Your task to perform on an android device: turn pop-ups on in chrome Image 0: 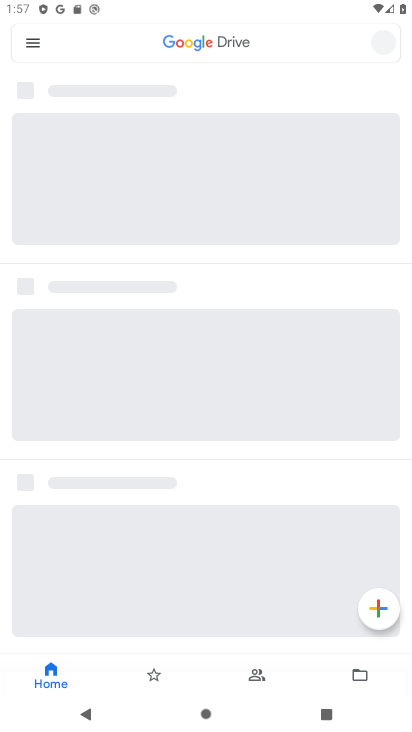
Step 0: click (123, 600)
Your task to perform on an android device: turn pop-ups on in chrome Image 1: 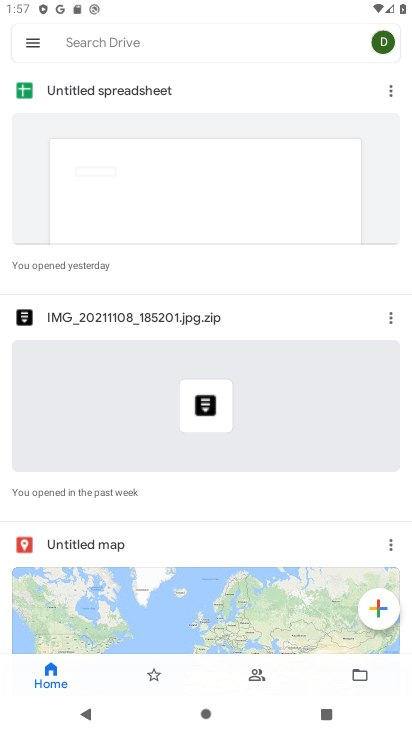
Step 1: press home button
Your task to perform on an android device: turn pop-ups on in chrome Image 2: 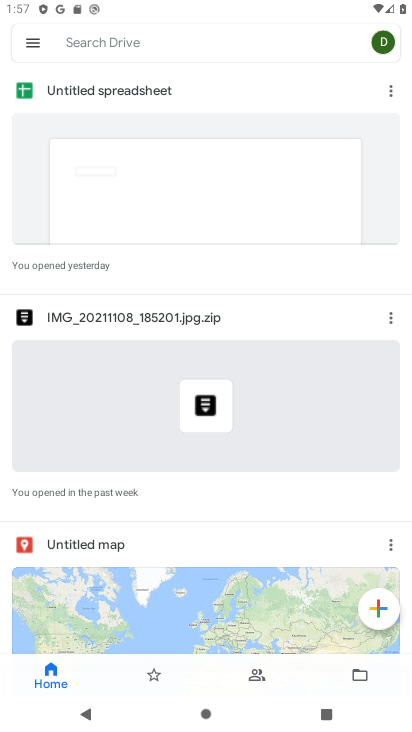
Step 2: press home button
Your task to perform on an android device: turn pop-ups on in chrome Image 3: 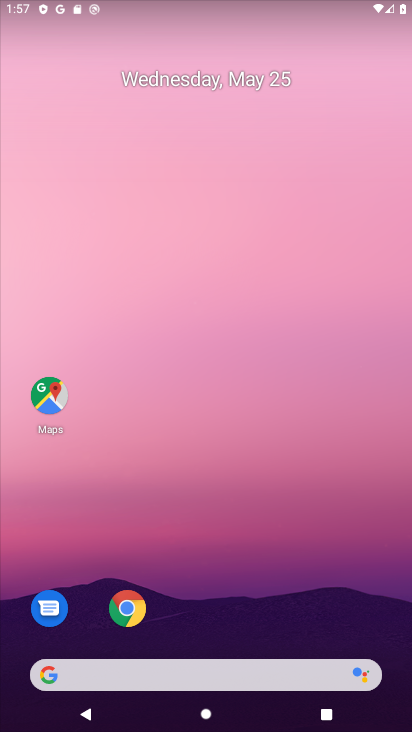
Step 3: press home button
Your task to perform on an android device: turn pop-ups on in chrome Image 4: 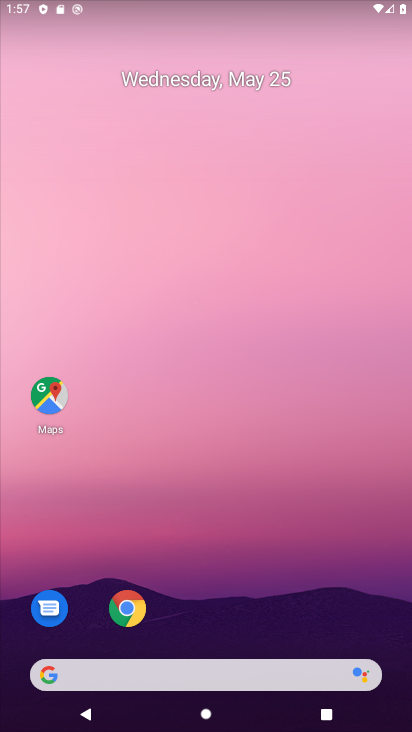
Step 4: drag from (371, 533) to (123, 607)
Your task to perform on an android device: turn pop-ups on in chrome Image 5: 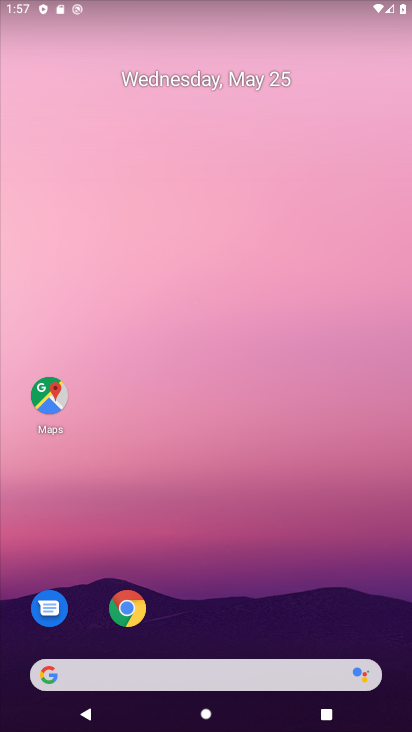
Step 5: click (128, 607)
Your task to perform on an android device: turn pop-ups on in chrome Image 6: 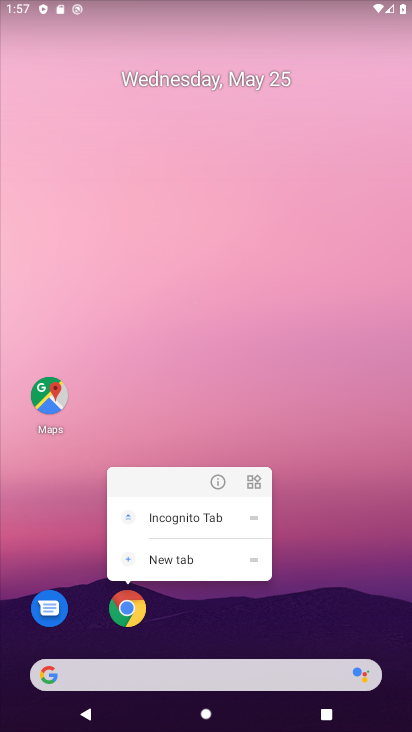
Step 6: click (128, 607)
Your task to perform on an android device: turn pop-ups on in chrome Image 7: 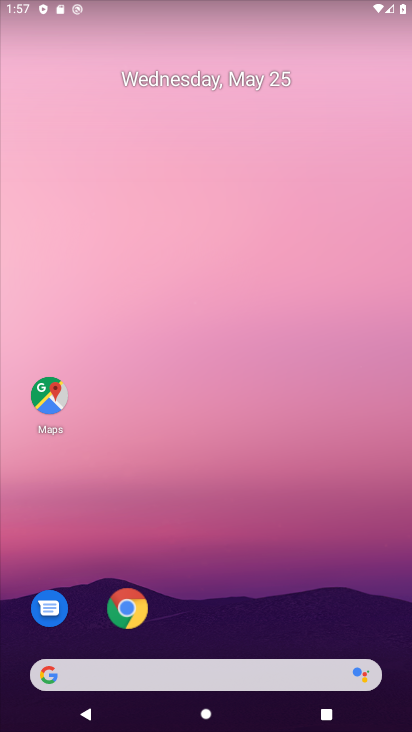
Step 7: click (128, 607)
Your task to perform on an android device: turn pop-ups on in chrome Image 8: 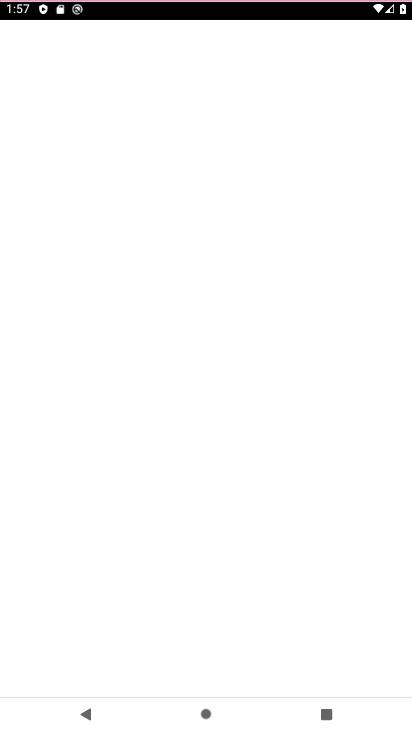
Step 8: click (128, 607)
Your task to perform on an android device: turn pop-ups on in chrome Image 9: 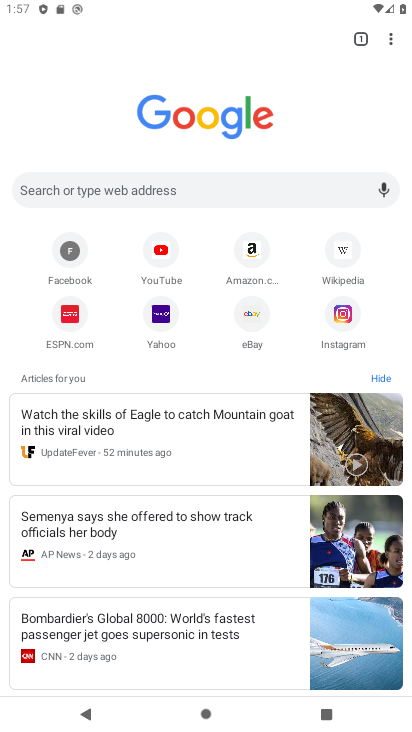
Step 9: click (392, 35)
Your task to perform on an android device: turn pop-ups on in chrome Image 10: 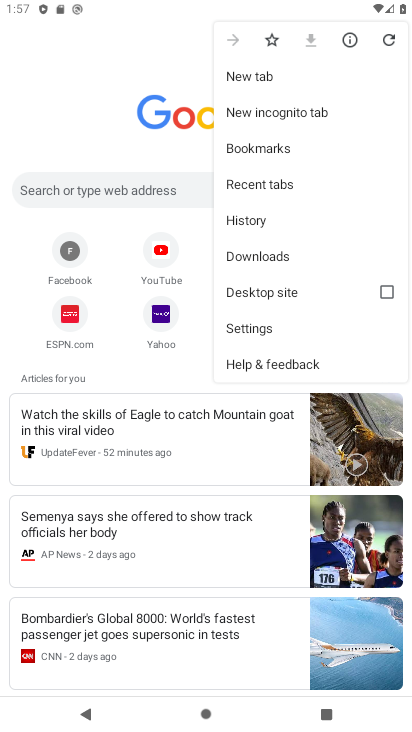
Step 10: click (235, 332)
Your task to perform on an android device: turn pop-ups on in chrome Image 11: 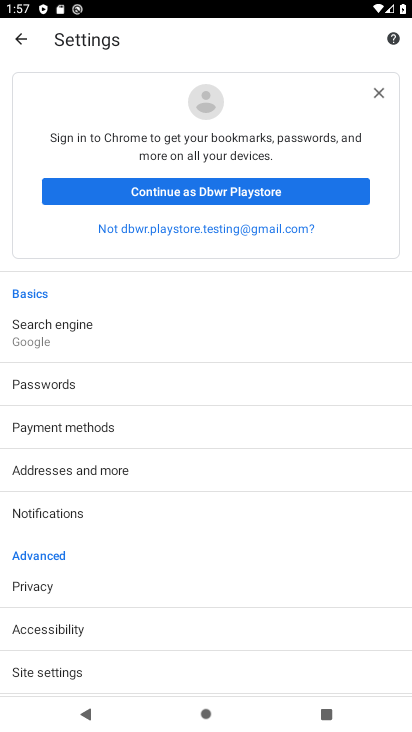
Step 11: drag from (134, 579) to (233, 318)
Your task to perform on an android device: turn pop-ups on in chrome Image 12: 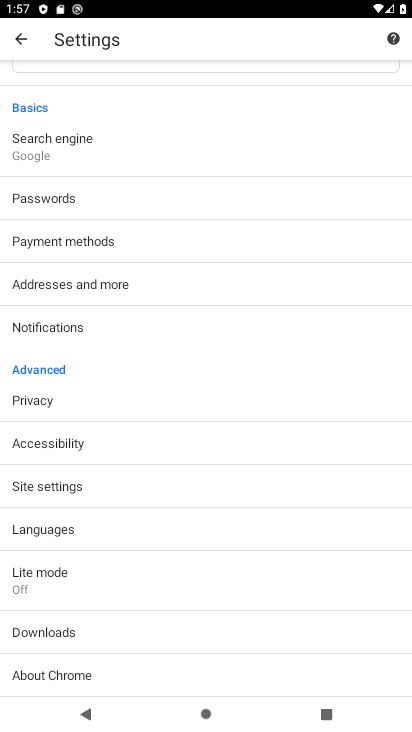
Step 12: click (78, 483)
Your task to perform on an android device: turn pop-ups on in chrome Image 13: 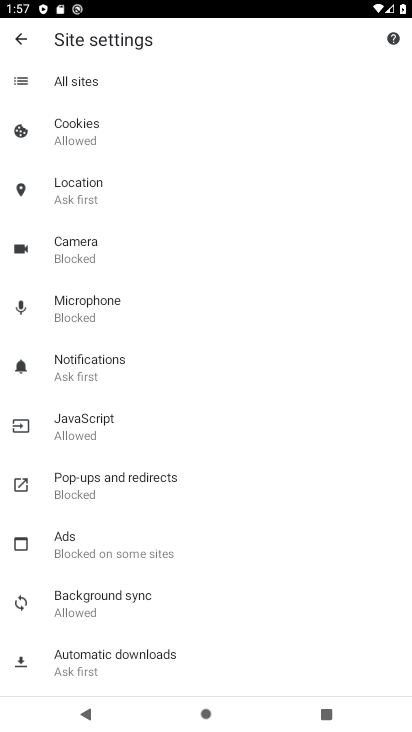
Step 13: click (97, 471)
Your task to perform on an android device: turn pop-ups on in chrome Image 14: 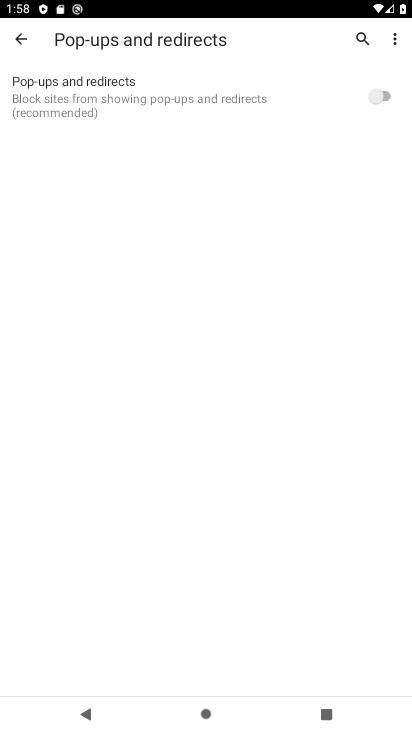
Step 14: click (380, 96)
Your task to perform on an android device: turn pop-ups on in chrome Image 15: 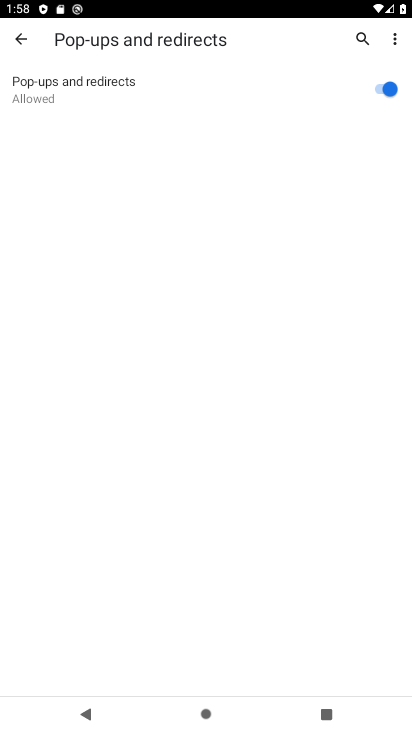
Step 15: task complete